Your task to perform on an android device: Clear the shopping cart on ebay. Add "apple airpods" to the cart on ebay, then select checkout. Image 0: 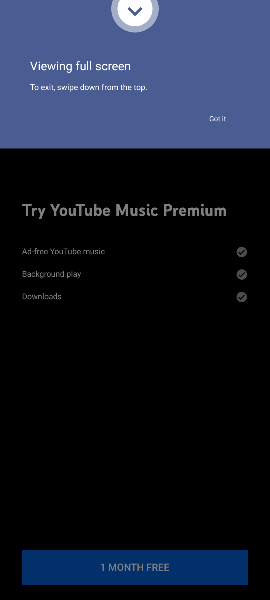
Step 0: press home button
Your task to perform on an android device: Clear the shopping cart on ebay. Add "apple airpods" to the cart on ebay, then select checkout. Image 1: 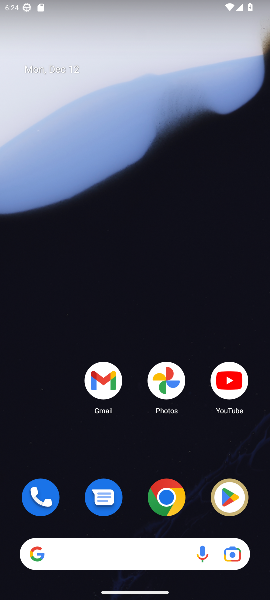
Step 1: drag from (66, 451) to (58, 87)
Your task to perform on an android device: Clear the shopping cart on ebay. Add "apple airpods" to the cart on ebay, then select checkout. Image 2: 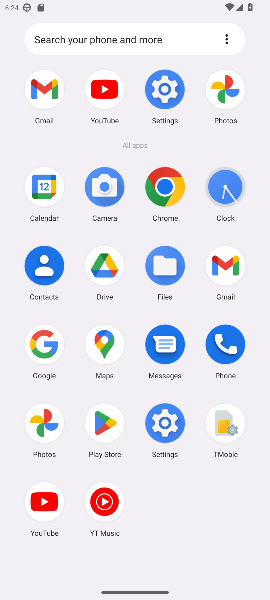
Step 2: click (43, 350)
Your task to perform on an android device: Clear the shopping cart on ebay. Add "apple airpods" to the cart on ebay, then select checkout. Image 3: 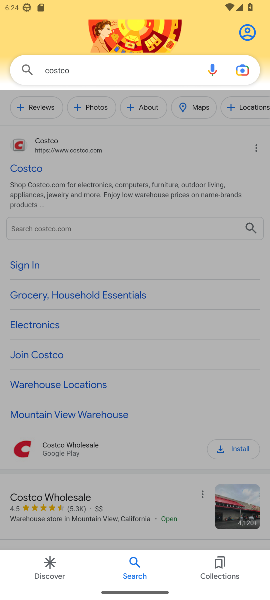
Step 3: click (62, 68)
Your task to perform on an android device: Clear the shopping cart on ebay. Add "apple airpods" to the cart on ebay, then select checkout. Image 4: 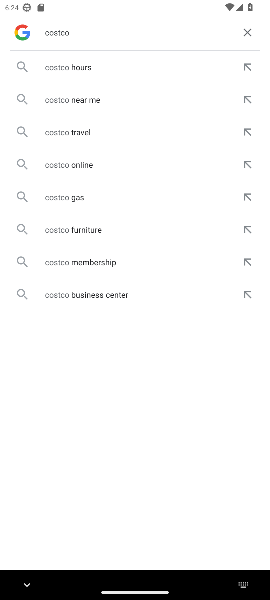
Step 4: click (245, 33)
Your task to perform on an android device: Clear the shopping cart on ebay. Add "apple airpods" to the cart on ebay, then select checkout. Image 5: 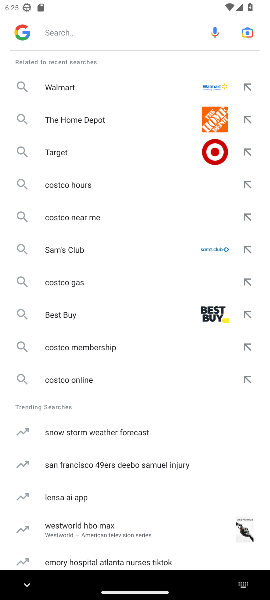
Step 5: type "ebay"
Your task to perform on an android device: Clear the shopping cart on ebay. Add "apple airpods" to the cart on ebay, then select checkout. Image 6: 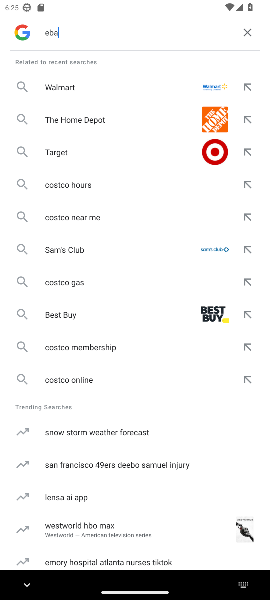
Step 6: press enter
Your task to perform on an android device: Clear the shopping cart on ebay. Add "apple airpods" to the cart on ebay, then select checkout. Image 7: 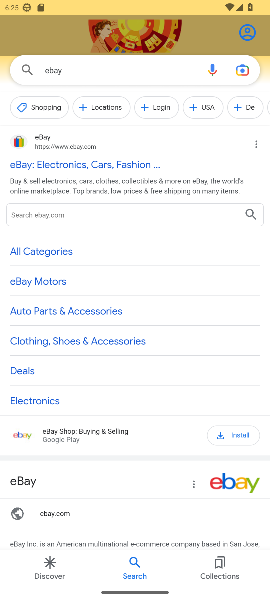
Step 7: click (102, 167)
Your task to perform on an android device: Clear the shopping cart on ebay. Add "apple airpods" to the cart on ebay, then select checkout. Image 8: 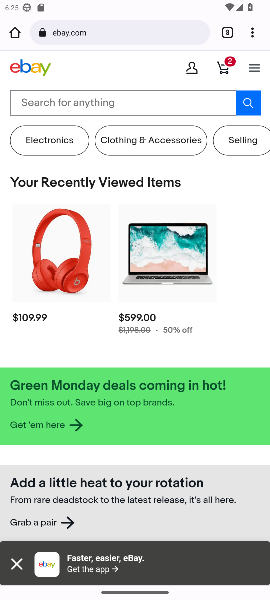
Step 8: click (219, 67)
Your task to perform on an android device: Clear the shopping cart on ebay. Add "apple airpods" to the cart on ebay, then select checkout. Image 9: 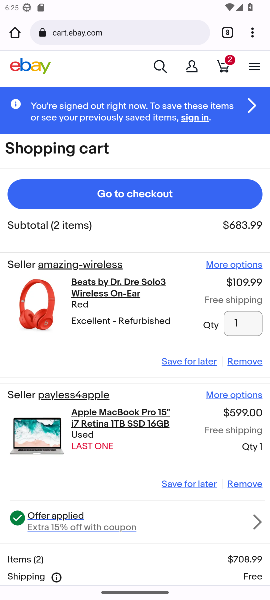
Step 9: click (244, 360)
Your task to perform on an android device: Clear the shopping cart on ebay. Add "apple airpods" to the cart on ebay, then select checkout. Image 10: 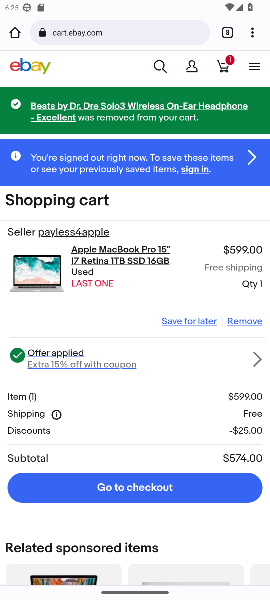
Step 10: click (241, 317)
Your task to perform on an android device: Clear the shopping cart on ebay. Add "apple airpods" to the cart on ebay, then select checkout. Image 11: 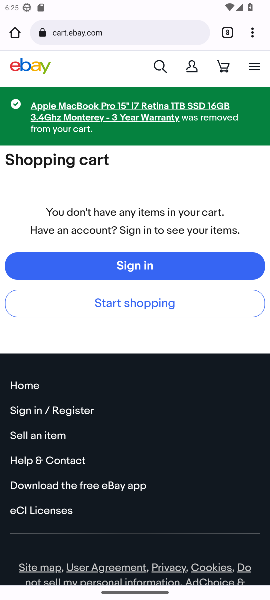
Step 11: click (157, 61)
Your task to perform on an android device: Clear the shopping cart on ebay. Add "apple airpods" to the cart on ebay, then select checkout. Image 12: 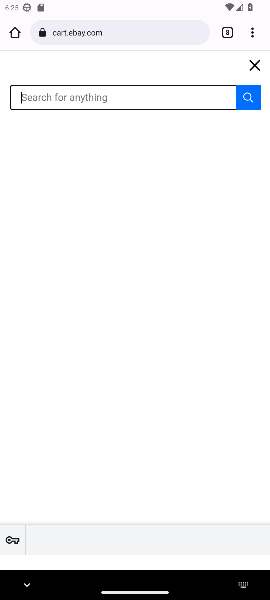
Step 12: type "apple airpods"
Your task to perform on an android device: Clear the shopping cart on ebay. Add "apple airpods" to the cart on ebay, then select checkout. Image 13: 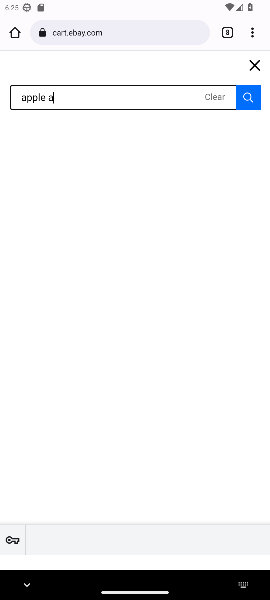
Step 13: press enter
Your task to perform on an android device: Clear the shopping cart on ebay. Add "apple airpods" to the cart on ebay, then select checkout. Image 14: 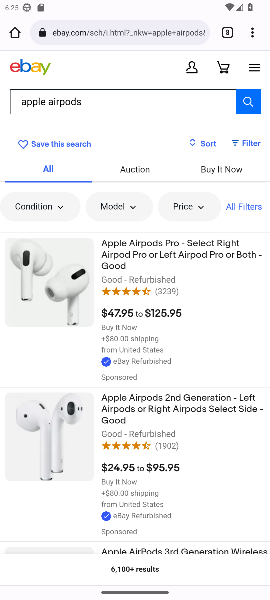
Step 14: click (147, 254)
Your task to perform on an android device: Clear the shopping cart on ebay. Add "apple airpods" to the cart on ebay, then select checkout. Image 15: 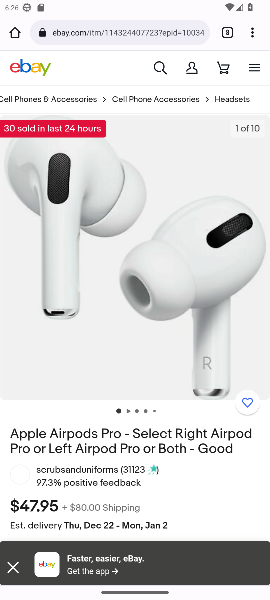
Step 15: drag from (153, 461) to (153, 191)
Your task to perform on an android device: Clear the shopping cart on ebay. Add "apple airpods" to the cart on ebay, then select checkout. Image 16: 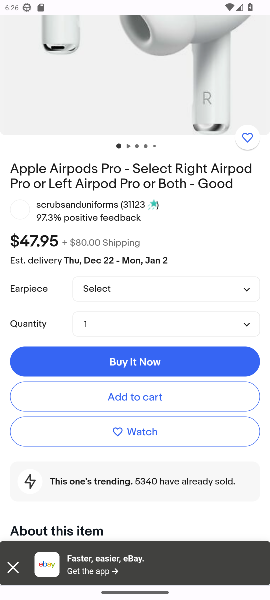
Step 16: click (136, 400)
Your task to perform on an android device: Clear the shopping cart on ebay. Add "apple airpods" to the cart on ebay, then select checkout. Image 17: 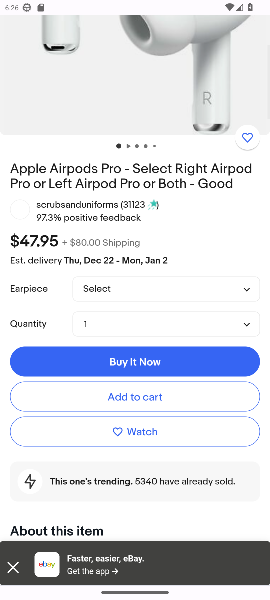
Step 17: click (130, 395)
Your task to perform on an android device: Clear the shopping cart on ebay. Add "apple airpods" to the cart on ebay, then select checkout. Image 18: 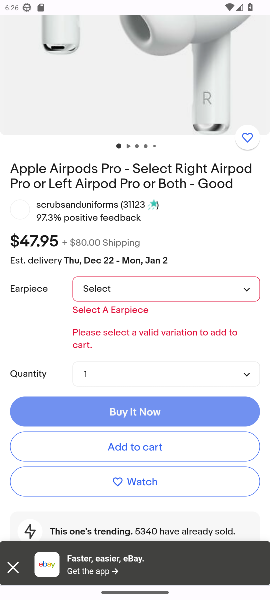
Step 18: click (246, 289)
Your task to perform on an android device: Clear the shopping cart on ebay. Add "apple airpods" to the cart on ebay, then select checkout. Image 19: 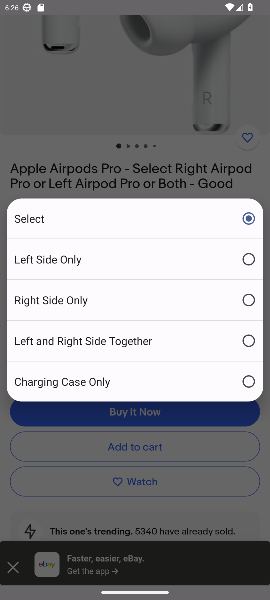
Step 19: click (246, 256)
Your task to perform on an android device: Clear the shopping cart on ebay. Add "apple airpods" to the cart on ebay, then select checkout. Image 20: 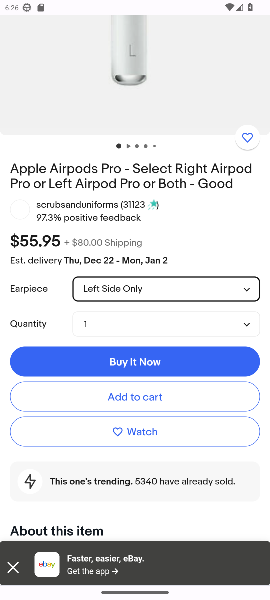
Step 20: click (161, 390)
Your task to perform on an android device: Clear the shopping cart on ebay. Add "apple airpods" to the cart on ebay, then select checkout. Image 21: 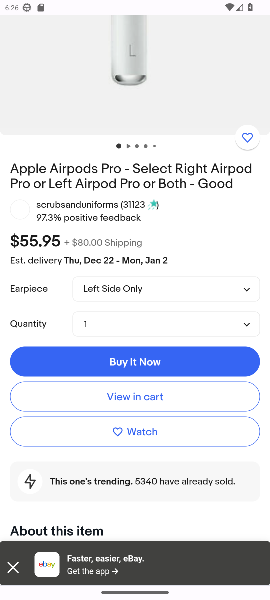
Step 21: task complete